Your task to perform on an android device: Search for sony triple a on costco.com, select the first entry, add it to the cart, then select checkout. Image 0: 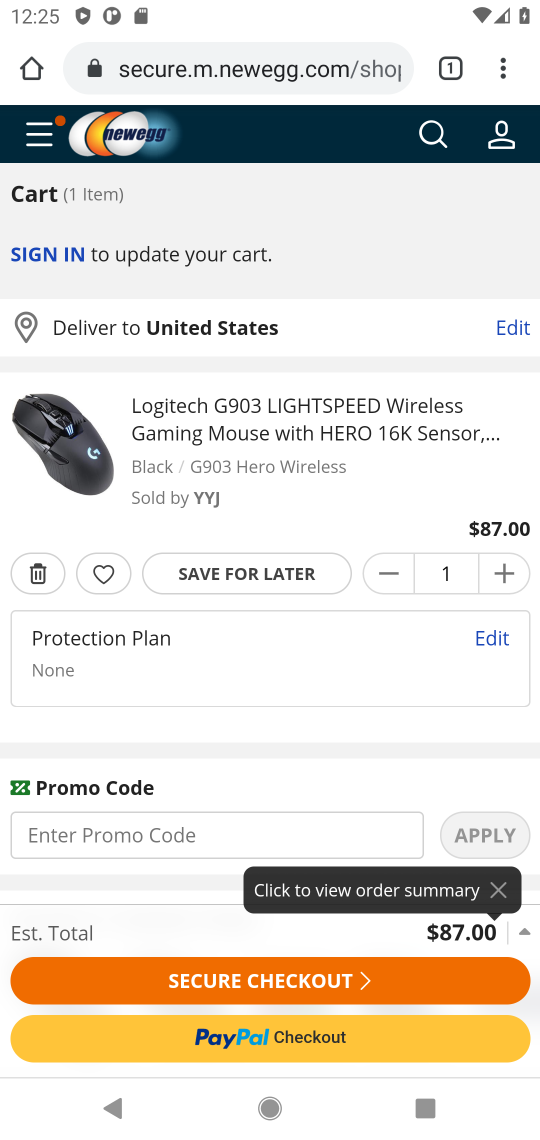
Step 0: click (285, 63)
Your task to perform on an android device: Search for sony triple a on costco.com, select the first entry, add it to the cart, then select checkout. Image 1: 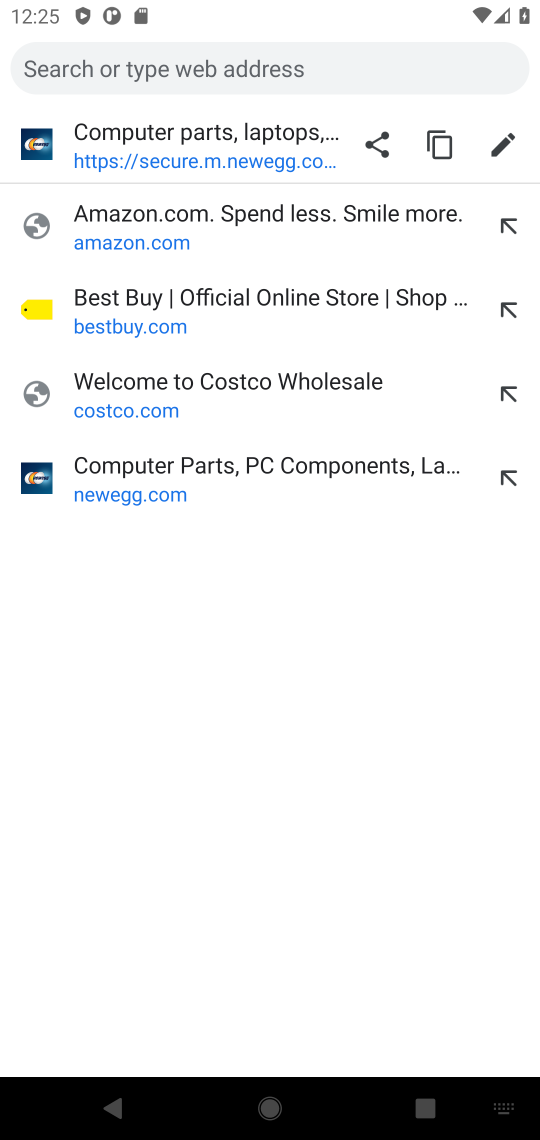
Step 1: press enter
Your task to perform on an android device: Search for sony triple a on costco.com, select the first entry, add it to the cart, then select checkout. Image 2: 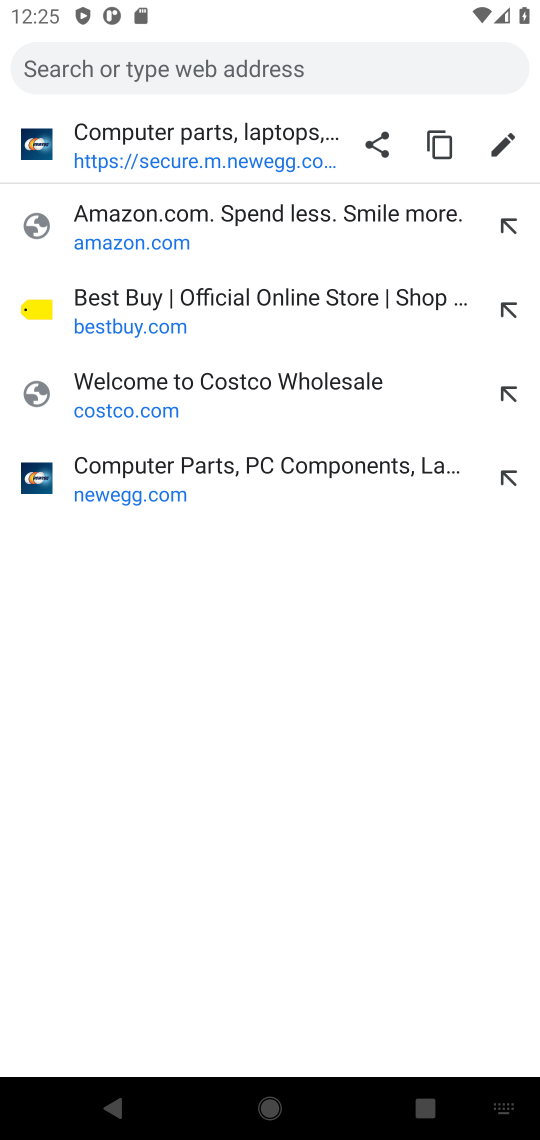
Step 2: type "costco.com"
Your task to perform on an android device: Search for sony triple a on costco.com, select the first entry, add it to the cart, then select checkout. Image 3: 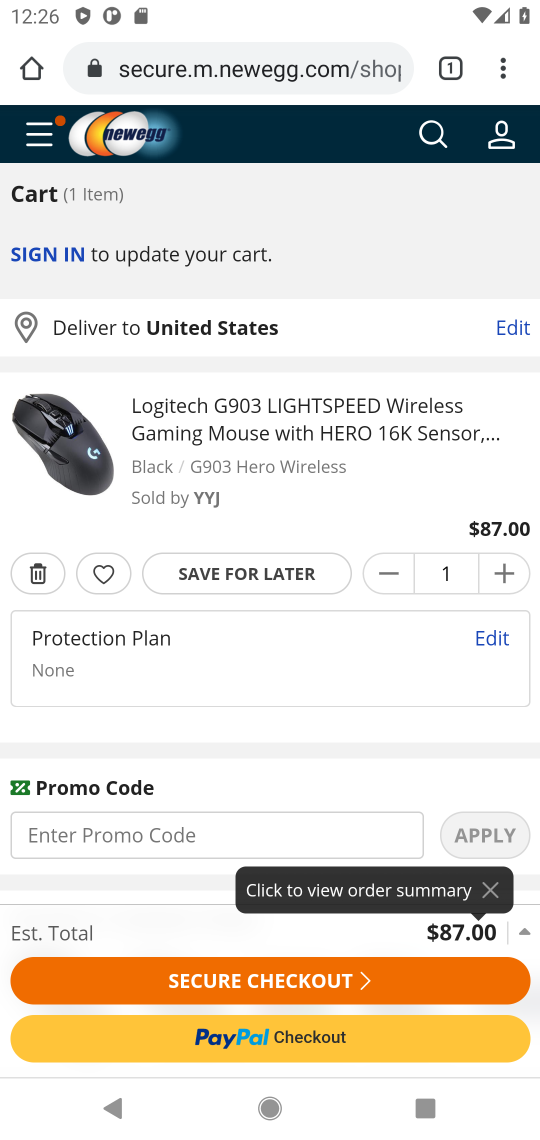
Step 3: click (278, 58)
Your task to perform on an android device: Search for sony triple a on costco.com, select the first entry, add it to the cart, then select checkout. Image 4: 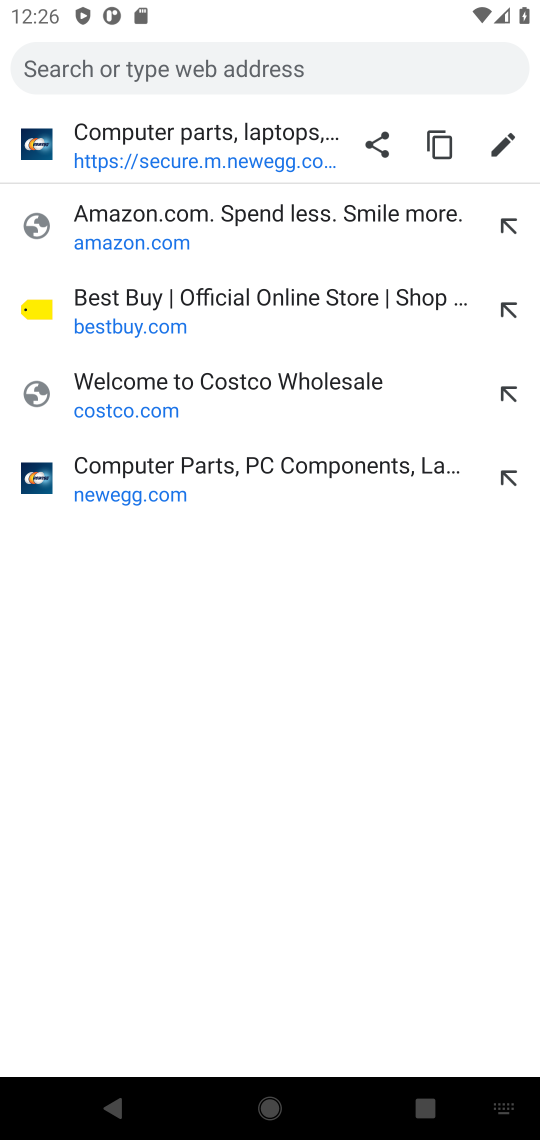
Step 4: click (151, 407)
Your task to perform on an android device: Search for sony triple a on costco.com, select the first entry, add it to the cart, then select checkout. Image 5: 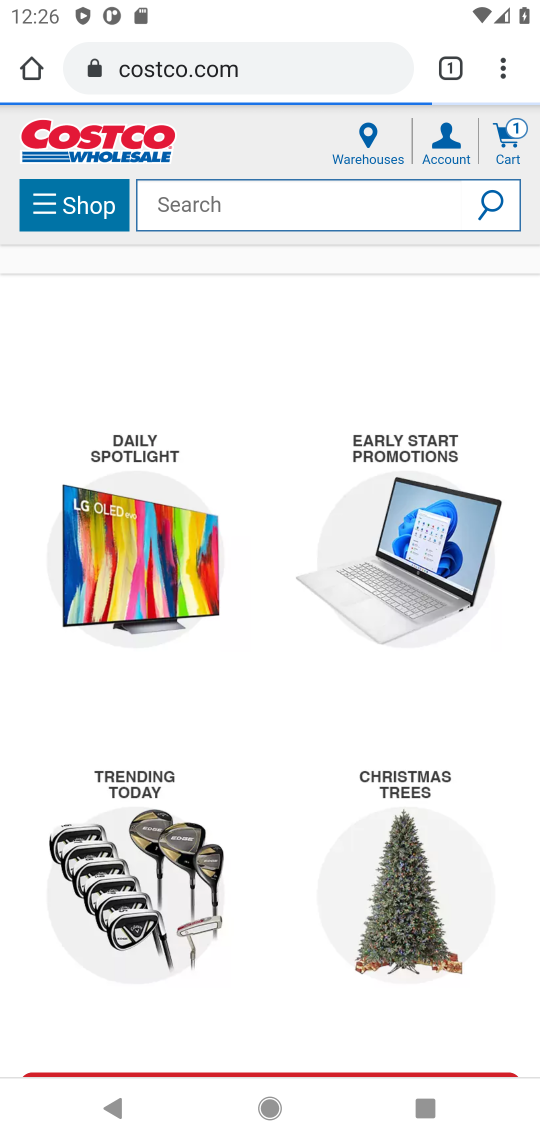
Step 5: click (323, 194)
Your task to perform on an android device: Search for sony triple a on costco.com, select the first entry, add it to the cart, then select checkout. Image 6: 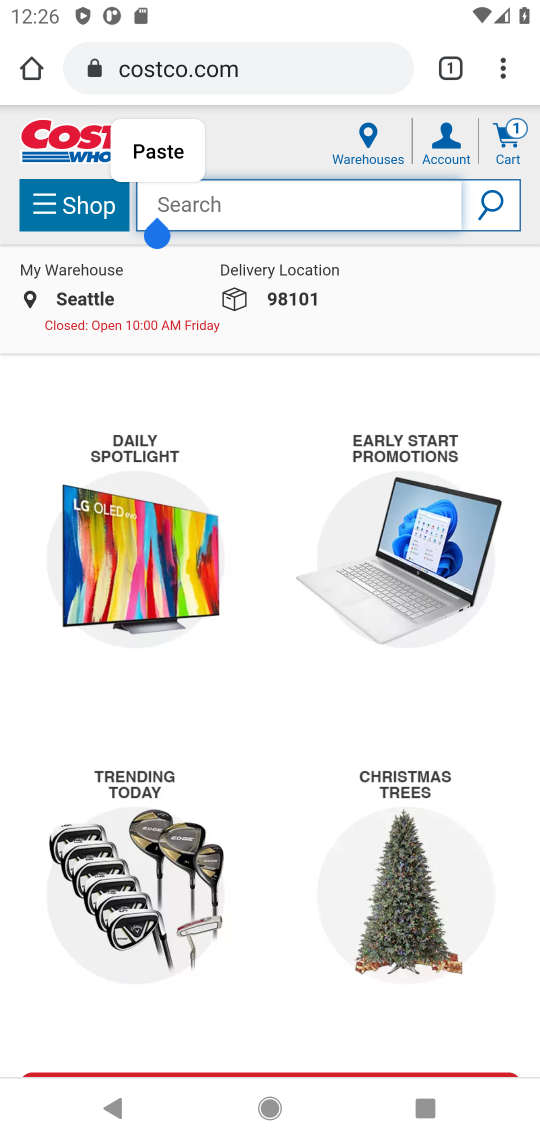
Step 6: type "sony triple a"
Your task to perform on an android device: Search for sony triple a on costco.com, select the first entry, add it to the cart, then select checkout. Image 7: 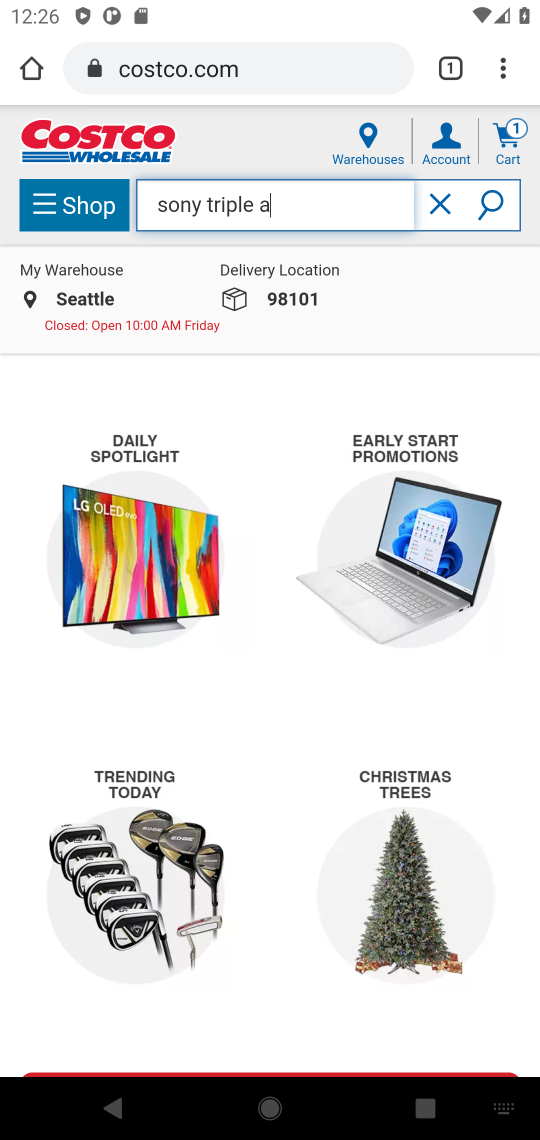
Step 7: press enter
Your task to perform on an android device: Search for sony triple a on costco.com, select the first entry, add it to the cart, then select checkout. Image 8: 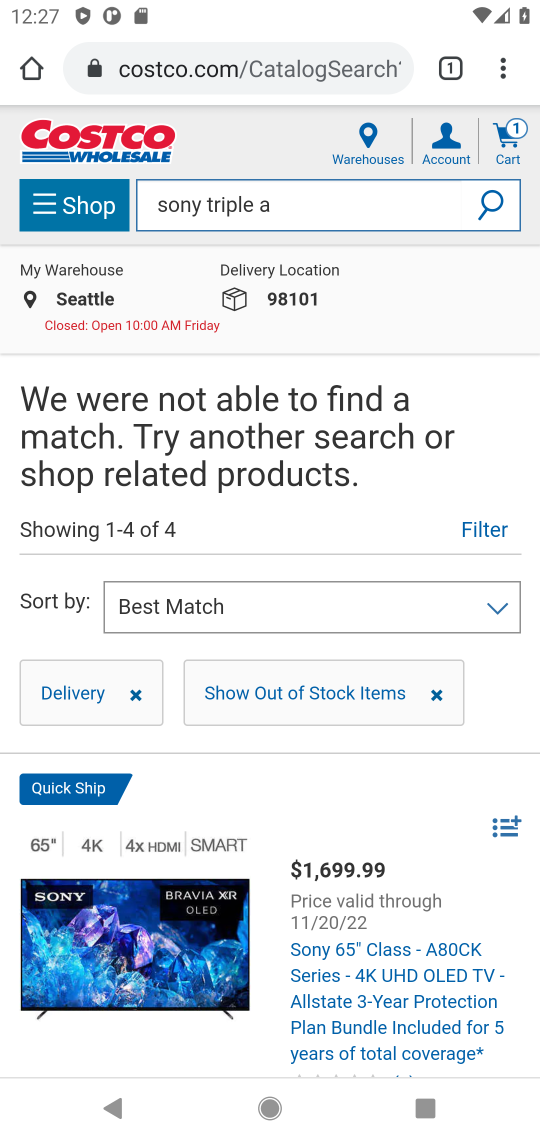
Step 8: task complete